Your task to perform on an android device: see creations saved in the google photos Image 0: 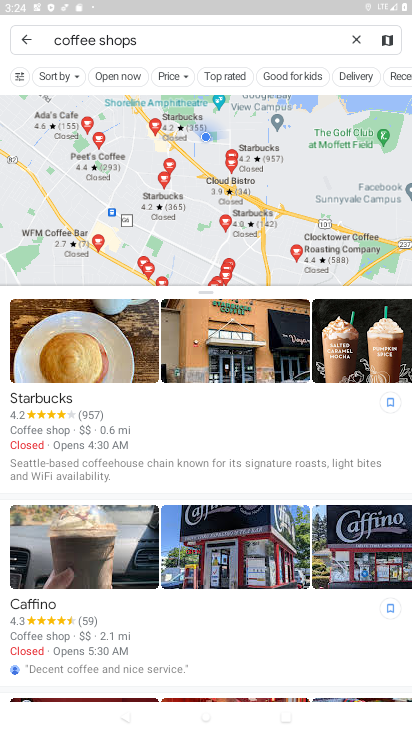
Step 0: press home button
Your task to perform on an android device: see creations saved in the google photos Image 1: 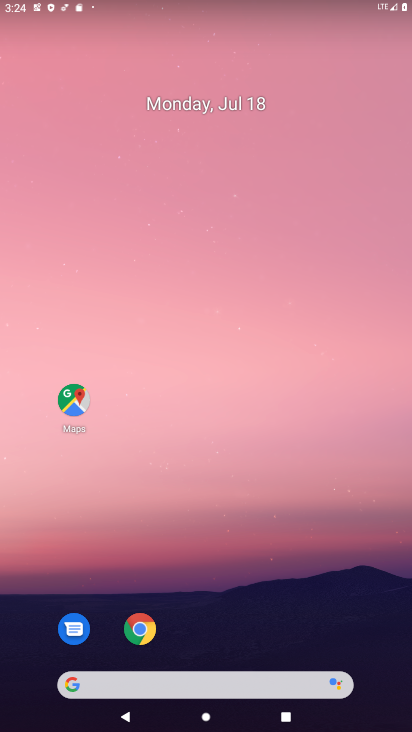
Step 1: drag from (190, 637) to (243, 0)
Your task to perform on an android device: see creations saved in the google photos Image 2: 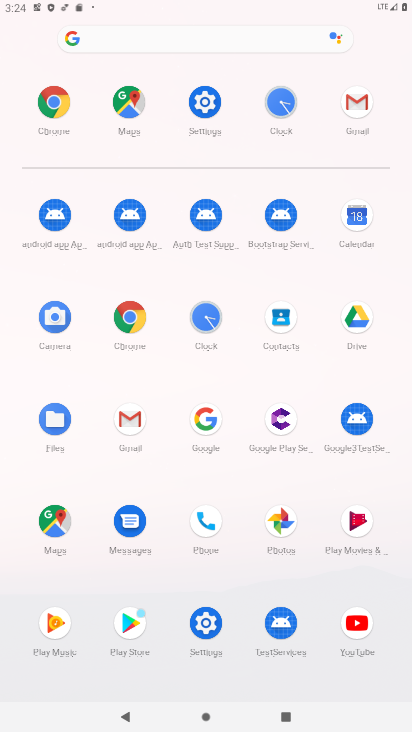
Step 2: click (288, 533)
Your task to perform on an android device: see creations saved in the google photos Image 3: 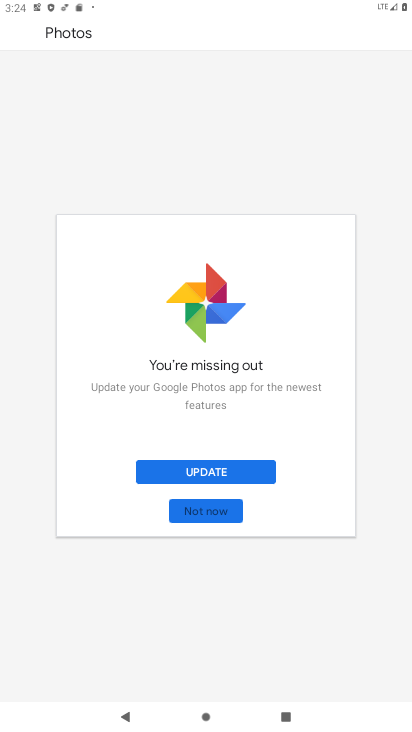
Step 3: click (223, 511)
Your task to perform on an android device: see creations saved in the google photos Image 4: 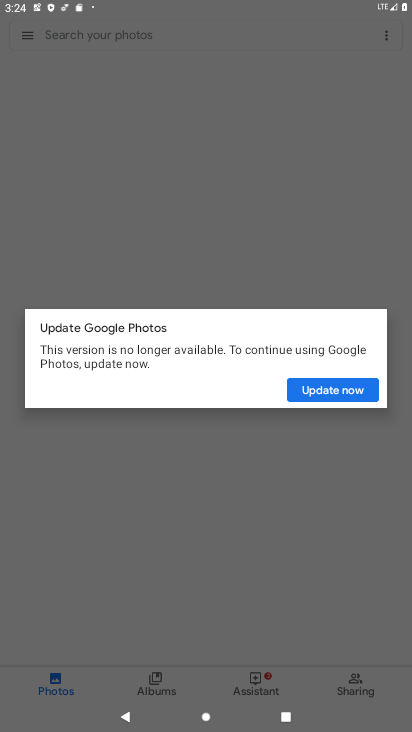
Step 4: click (334, 395)
Your task to perform on an android device: see creations saved in the google photos Image 5: 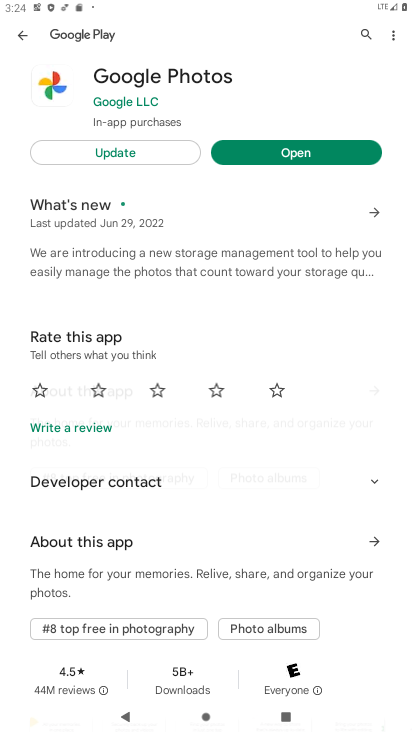
Step 5: click (264, 158)
Your task to perform on an android device: see creations saved in the google photos Image 6: 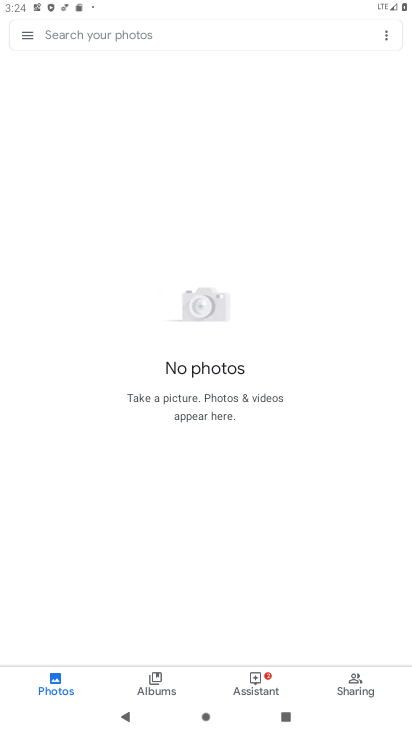
Step 6: click (196, 26)
Your task to perform on an android device: see creations saved in the google photos Image 7: 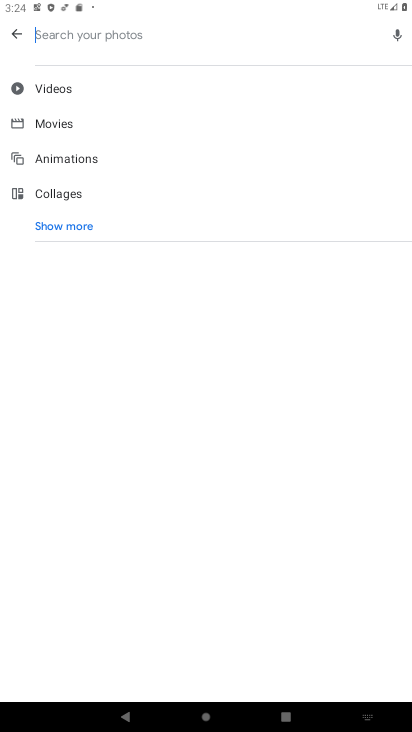
Step 7: type "creations"
Your task to perform on an android device: see creations saved in the google photos Image 8: 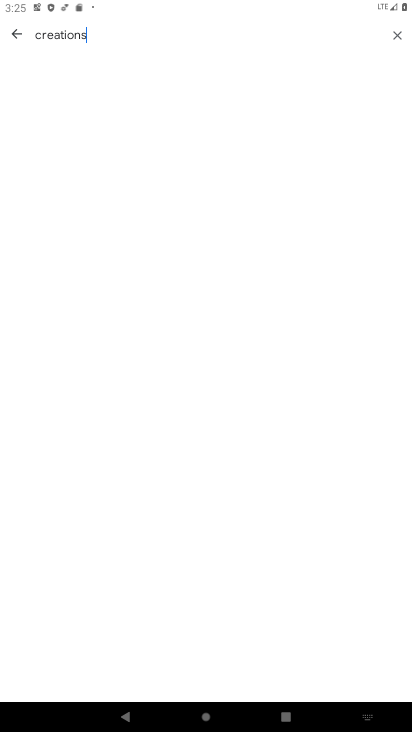
Step 8: task complete